Your task to perform on an android device: toggle translation in the chrome app Image 0: 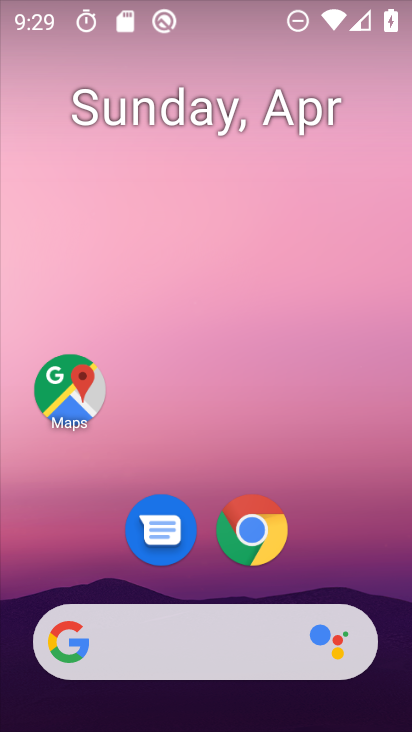
Step 0: click (261, 535)
Your task to perform on an android device: toggle translation in the chrome app Image 1: 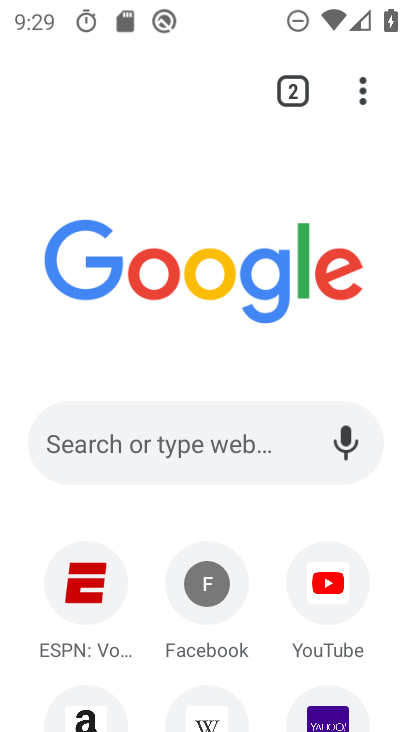
Step 1: drag from (361, 89) to (80, 586)
Your task to perform on an android device: toggle translation in the chrome app Image 2: 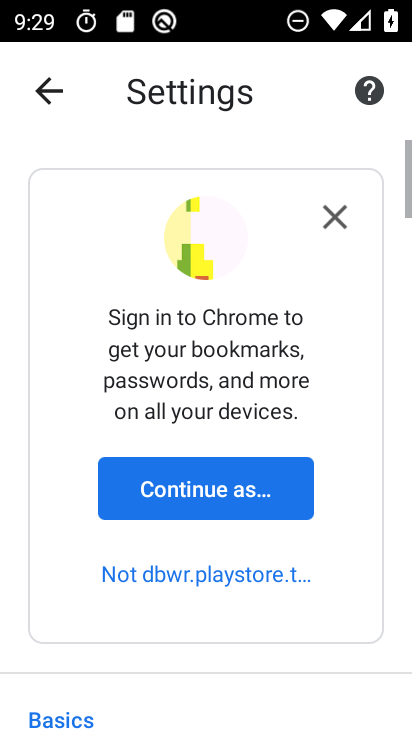
Step 2: drag from (187, 595) to (183, 159)
Your task to perform on an android device: toggle translation in the chrome app Image 3: 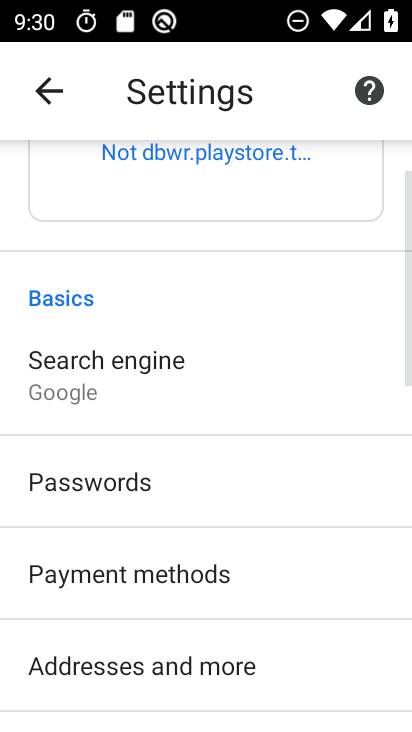
Step 3: drag from (175, 593) to (172, 151)
Your task to perform on an android device: toggle translation in the chrome app Image 4: 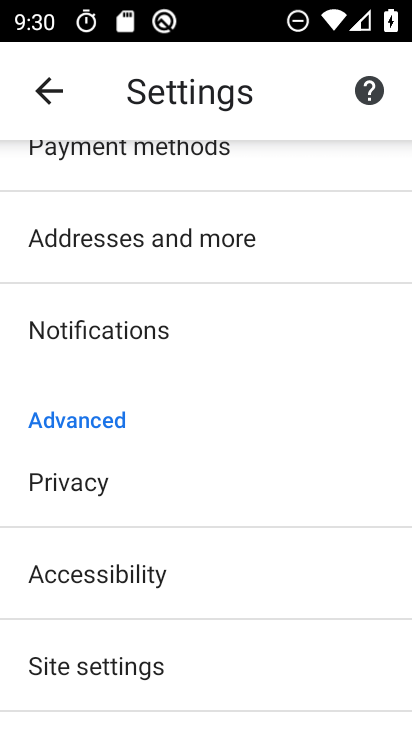
Step 4: drag from (174, 561) to (163, 271)
Your task to perform on an android device: toggle translation in the chrome app Image 5: 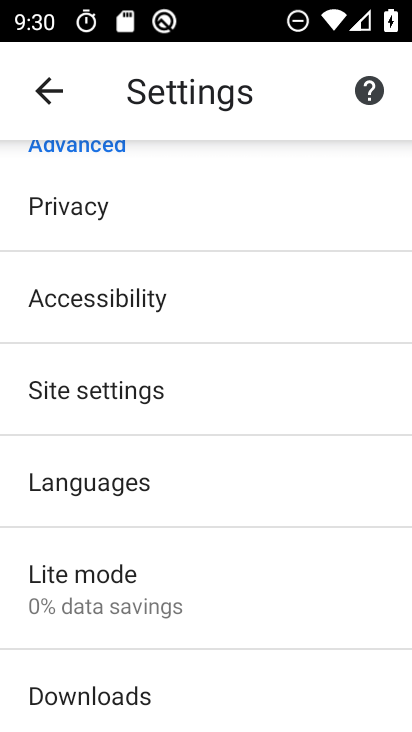
Step 5: click (126, 490)
Your task to perform on an android device: toggle translation in the chrome app Image 6: 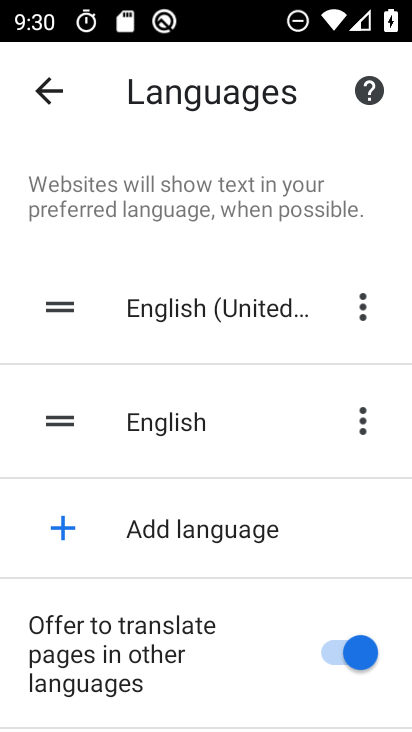
Step 6: drag from (234, 582) to (234, 239)
Your task to perform on an android device: toggle translation in the chrome app Image 7: 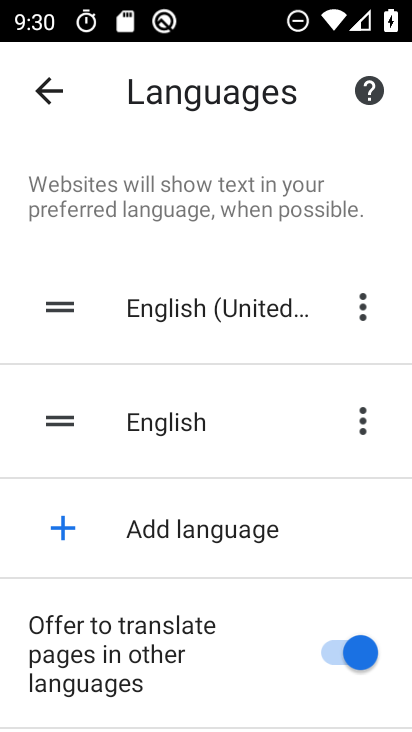
Step 7: click (368, 652)
Your task to perform on an android device: toggle translation in the chrome app Image 8: 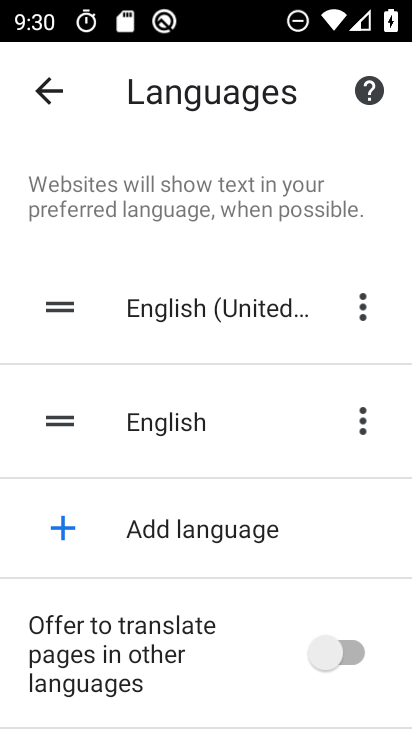
Step 8: task complete